Your task to perform on an android device: see tabs open on other devices in the chrome app Image 0: 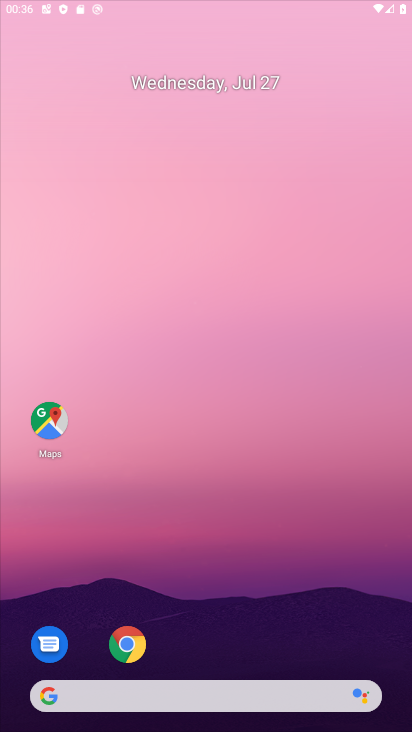
Step 0: click (53, 420)
Your task to perform on an android device: see tabs open on other devices in the chrome app Image 1: 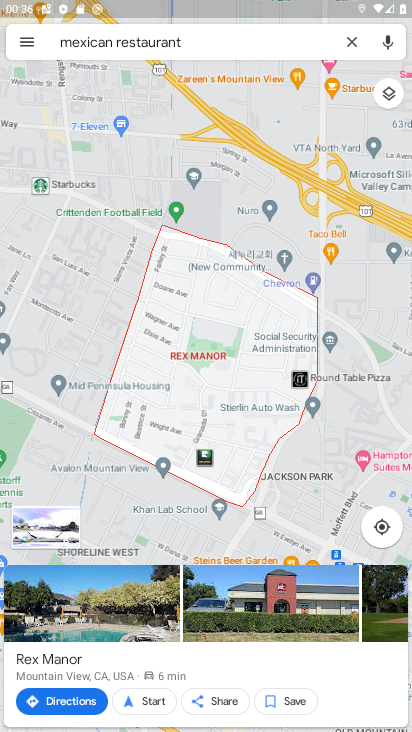
Step 1: task complete